Your task to perform on an android device: Show me productivity apps on the Play Store Image 0: 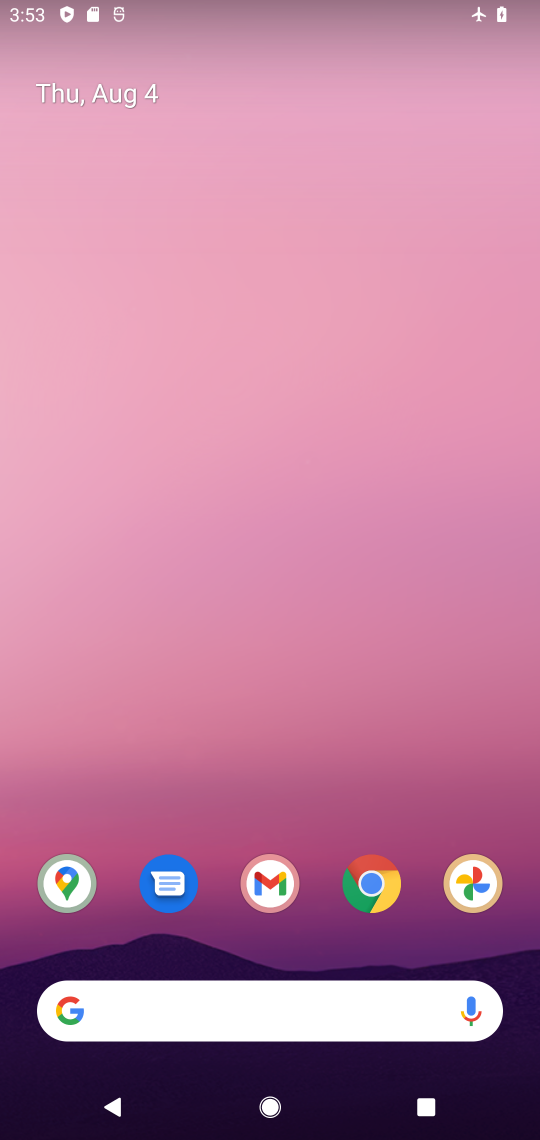
Step 0: drag from (294, 749) to (86, 148)
Your task to perform on an android device: Show me productivity apps on the Play Store Image 1: 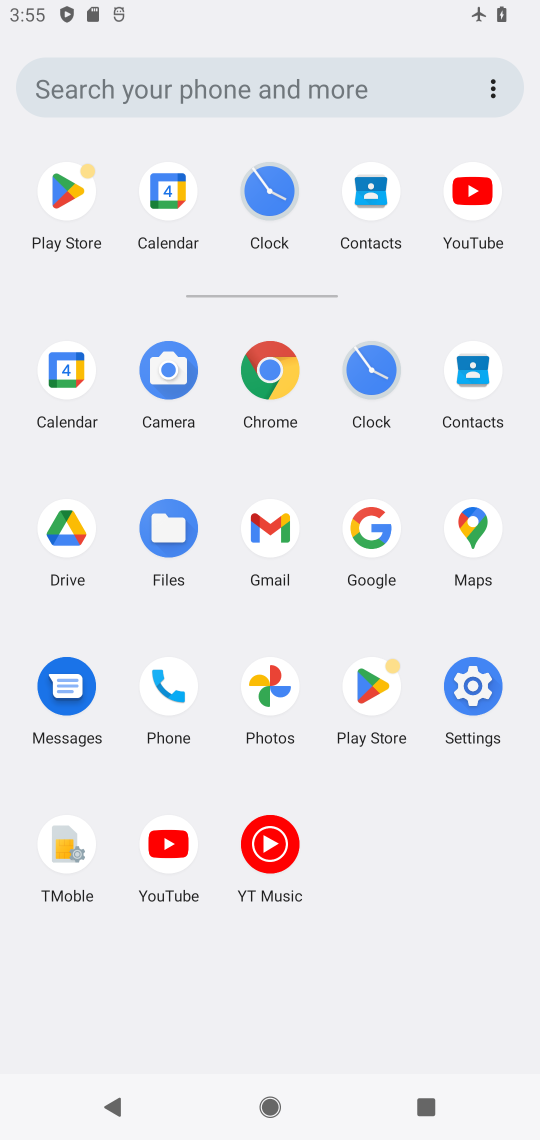
Step 1: click (361, 695)
Your task to perform on an android device: Show me productivity apps on the Play Store Image 2: 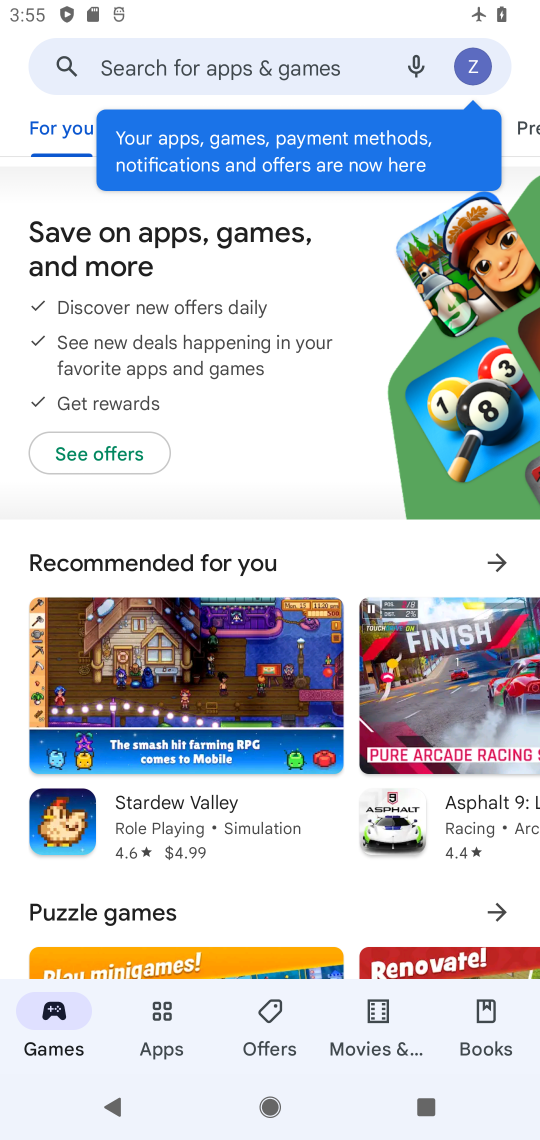
Step 2: task complete